Your task to perform on an android device: toggle data saver in the chrome app Image 0: 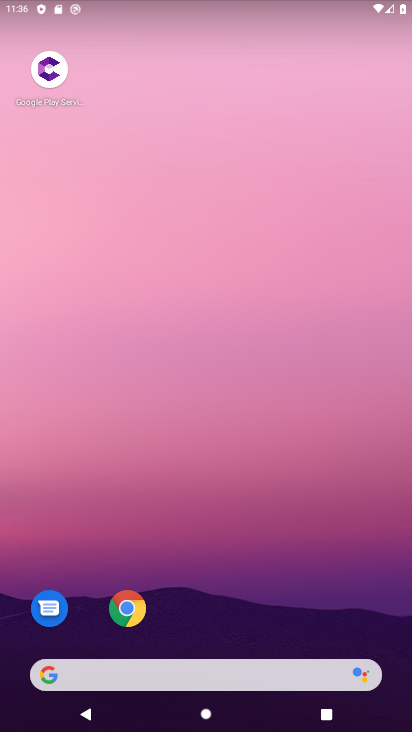
Step 0: click (124, 614)
Your task to perform on an android device: toggle data saver in the chrome app Image 1: 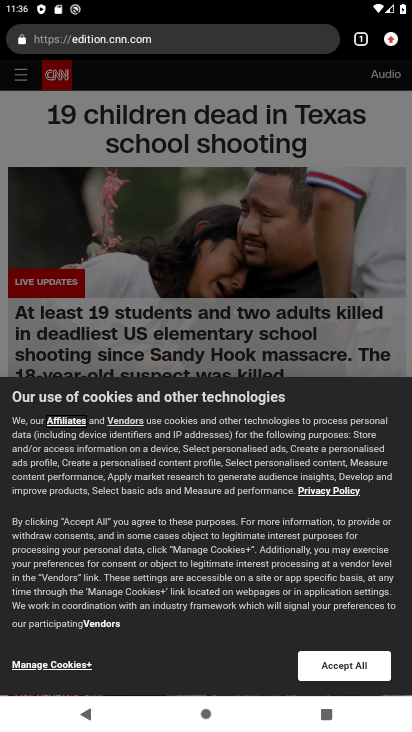
Step 1: drag from (384, 47) to (296, 485)
Your task to perform on an android device: toggle data saver in the chrome app Image 2: 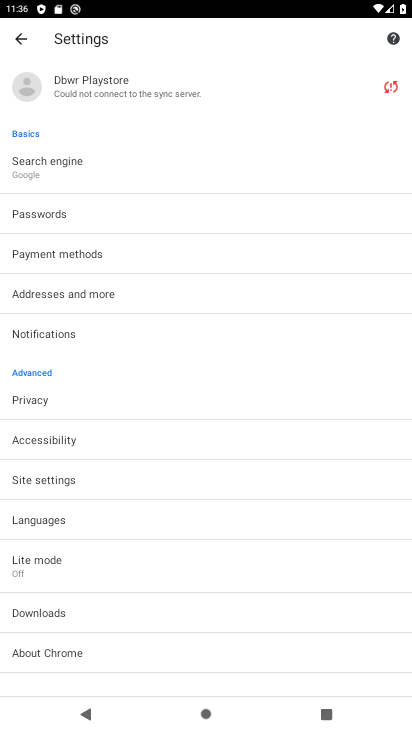
Step 2: drag from (133, 649) to (178, 438)
Your task to perform on an android device: toggle data saver in the chrome app Image 3: 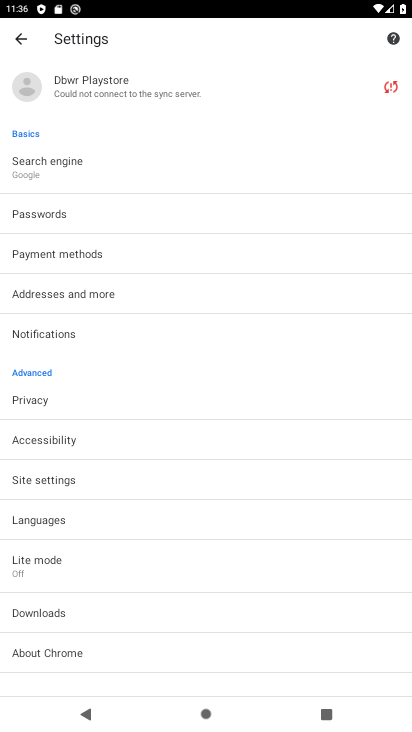
Step 3: click (80, 575)
Your task to perform on an android device: toggle data saver in the chrome app Image 4: 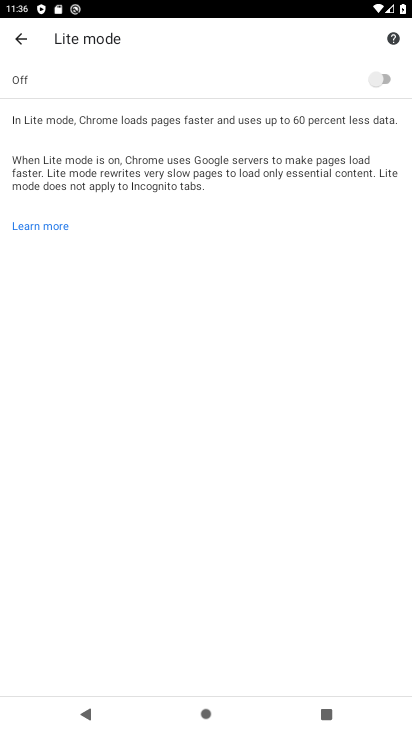
Step 4: click (398, 74)
Your task to perform on an android device: toggle data saver in the chrome app Image 5: 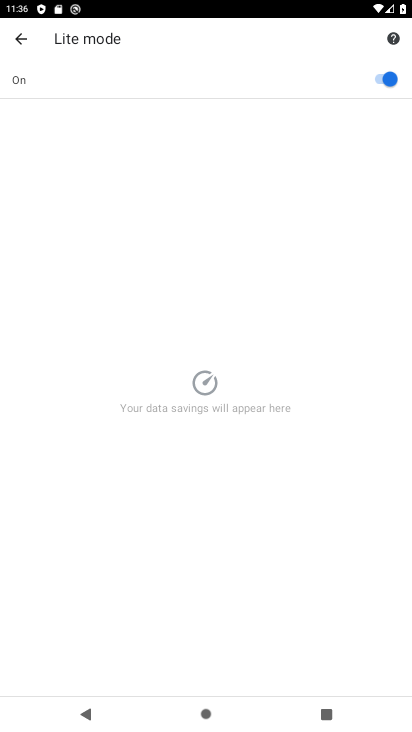
Step 5: task complete